Your task to perform on an android device: What's on my calendar today? Image 0: 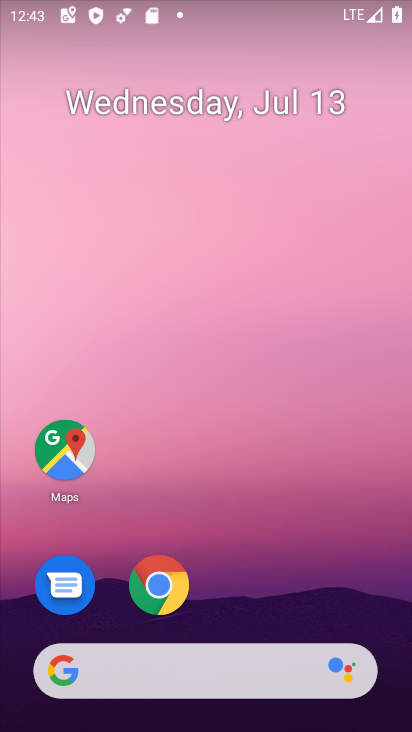
Step 0: drag from (211, 520) to (229, 29)
Your task to perform on an android device: What's on my calendar today? Image 1: 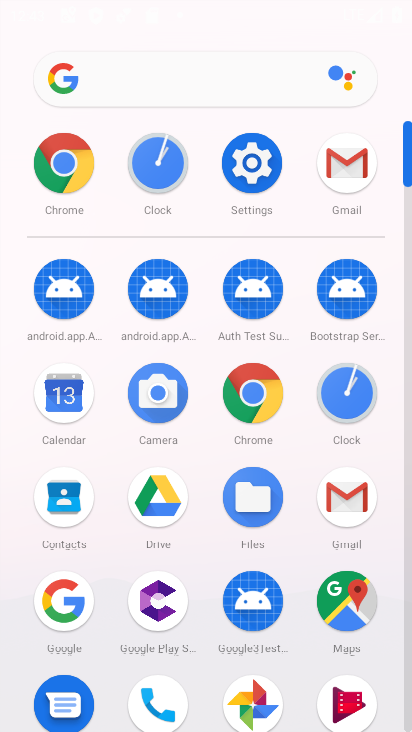
Step 1: click (64, 395)
Your task to perform on an android device: What's on my calendar today? Image 2: 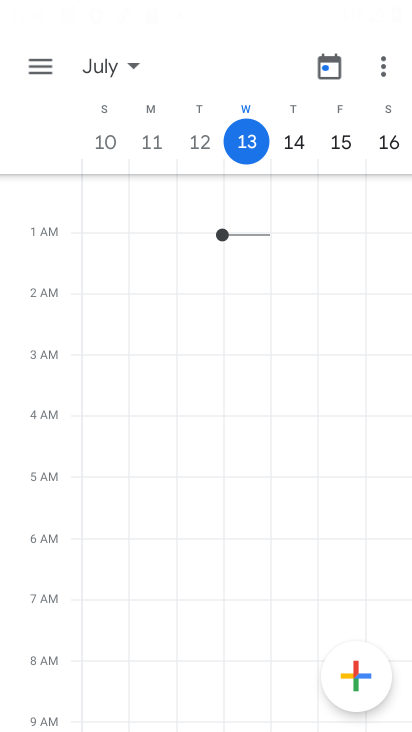
Step 2: task complete